Your task to perform on an android device: Go to wifi settings Image 0: 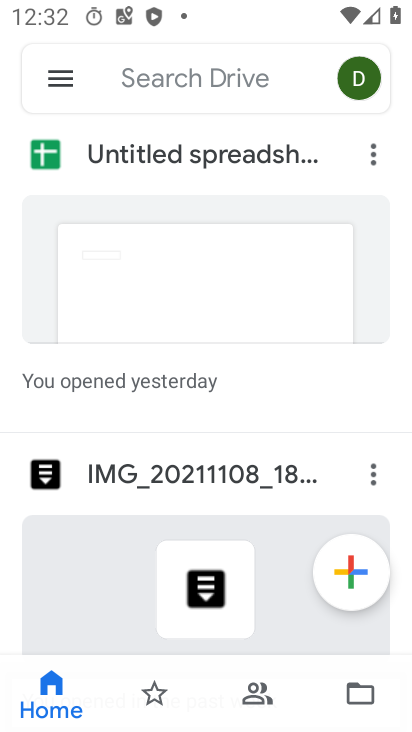
Step 0: press back button
Your task to perform on an android device: Go to wifi settings Image 1: 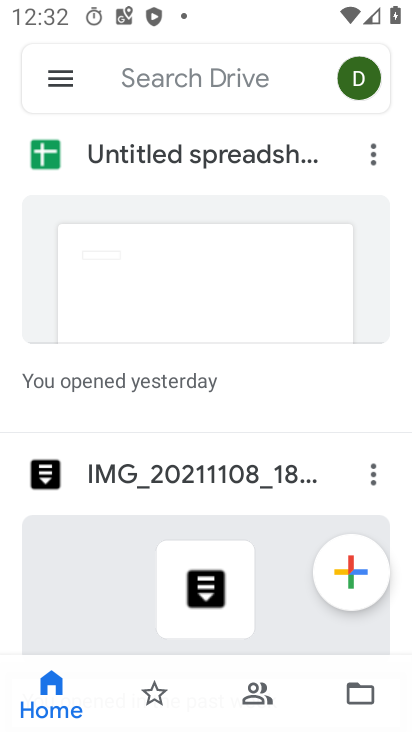
Step 1: press back button
Your task to perform on an android device: Go to wifi settings Image 2: 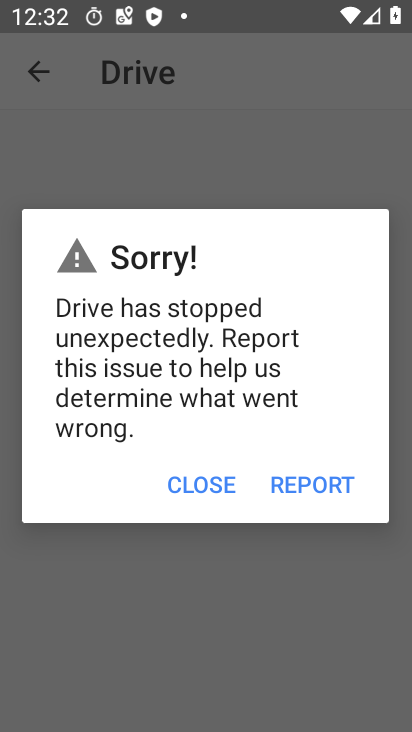
Step 2: press back button
Your task to perform on an android device: Go to wifi settings Image 3: 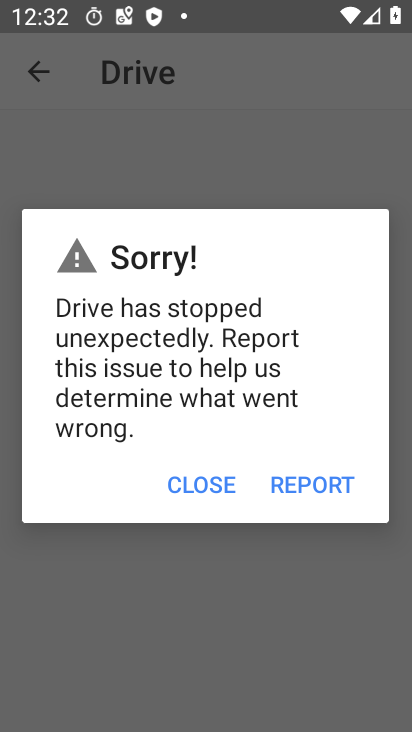
Step 3: click (219, 484)
Your task to perform on an android device: Go to wifi settings Image 4: 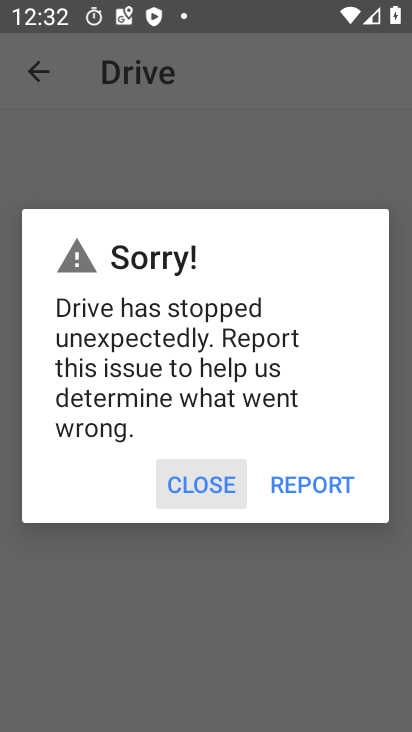
Step 4: click (216, 483)
Your task to perform on an android device: Go to wifi settings Image 5: 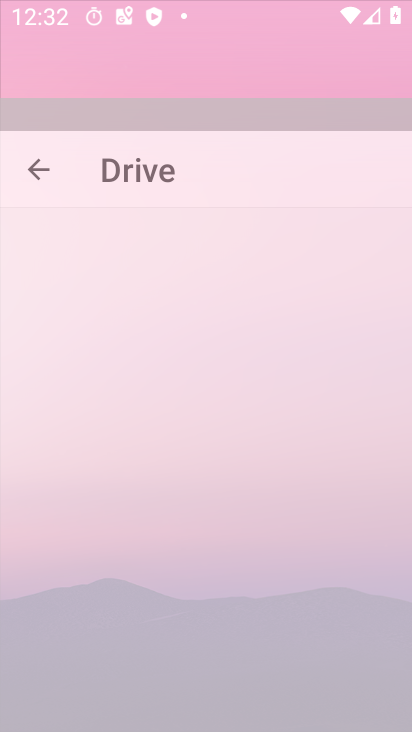
Step 5: click (217, 482)
Your task to perform on an android device: Go to wifi settings Image 6: 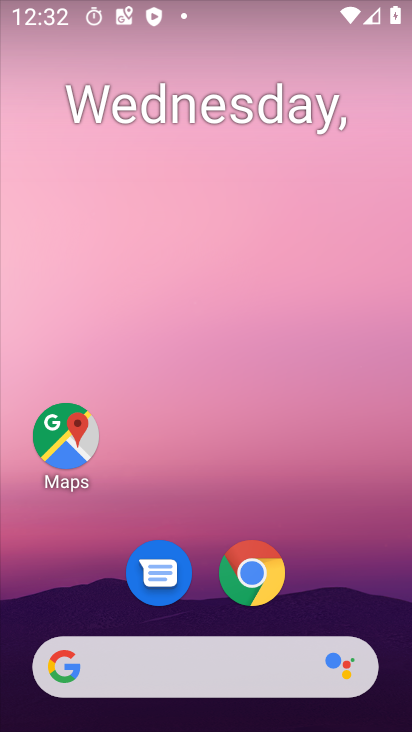
Step 6: drag from (336, 556) to (269, 196)
Your task to perform on an android device: Go to wifi settings Image 7: 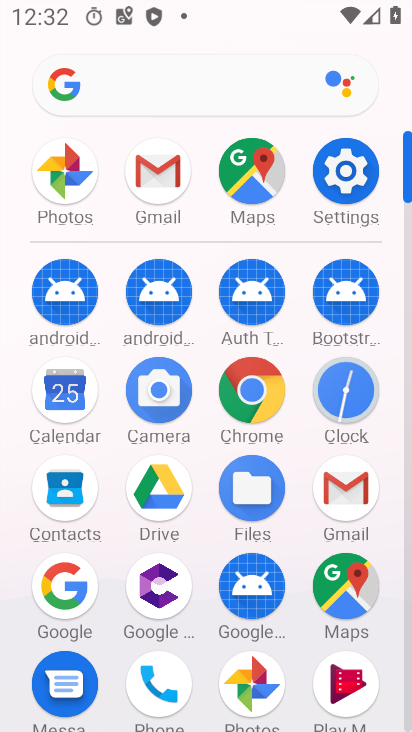
Step 7: click (345, 180)
Your task to perform on an android device: Go to wifi settings Image 8: 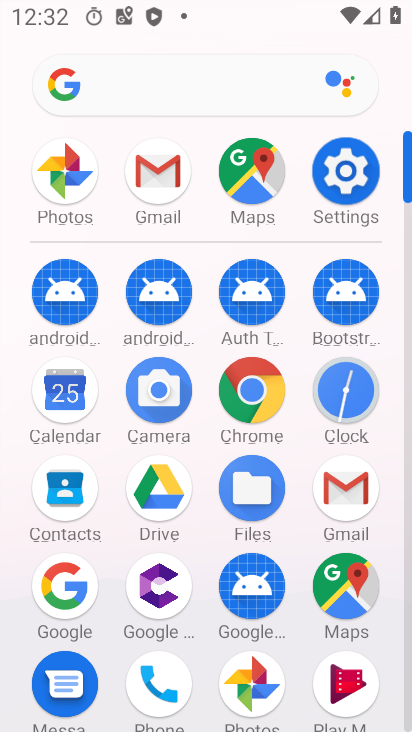
Step 8: click (345, 180)
Your task to perform on an android device: Go to wifi settings Image 9: 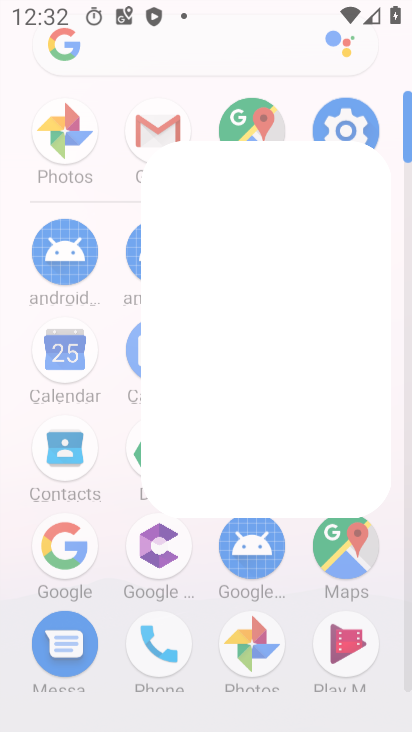
Step 9: click (345, 180)
Your task to perform on an android device: Go to wifi settings Image 10: 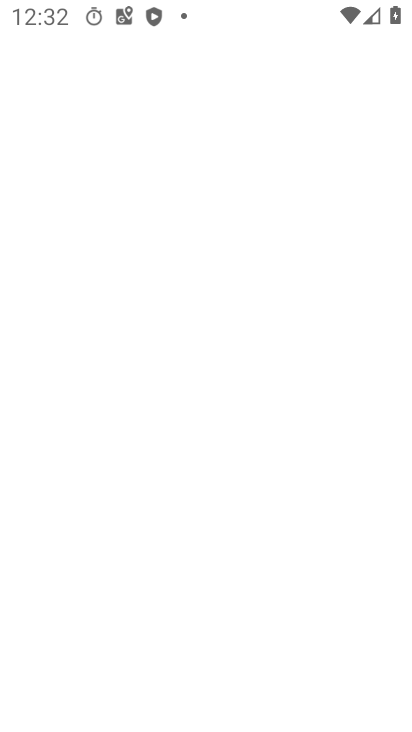
Step 10: click (345, 180)
Your task to perform on an android device: Go to wifi settings Image 11: 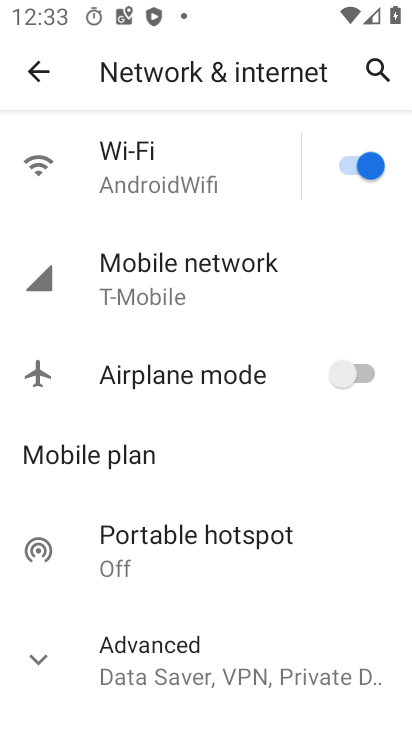
Step 11: task complete